Your task to perform on an android device: Open calendar and show me the second week of next month Image 0: 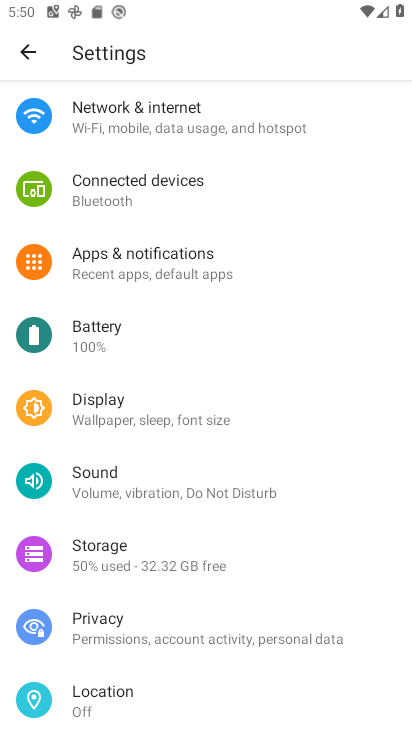
Step 0: press home button
Your task to perform on an android device: Open calendar and show me the second week of next month Image 1: 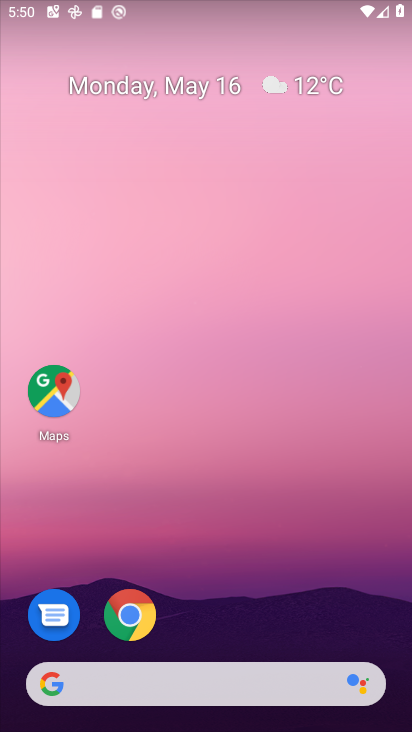
Step 1: drag from (244, 608) to (243, 154)
Your task to perform on an android device: Open calendar and show me the second week of next month Image 2: 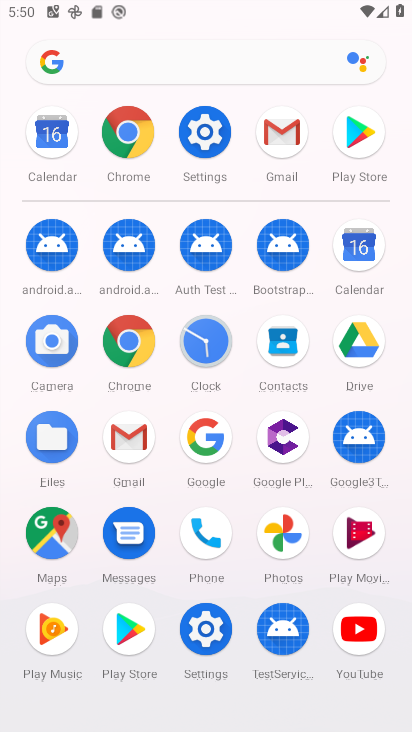
Step 2: click (361, 266)
Your task to perform on an android device: Open calendar and show me the second week of next month Image 3: 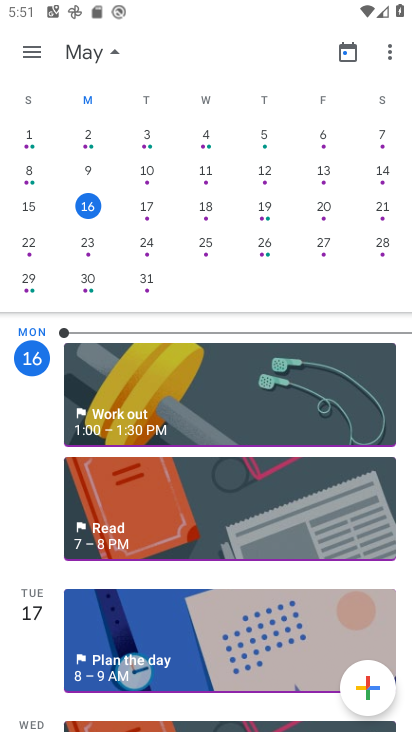
Step 3: click (30, 57)
Your task to perform on an android device: Open calendar and show me the second week of next month Image 4: 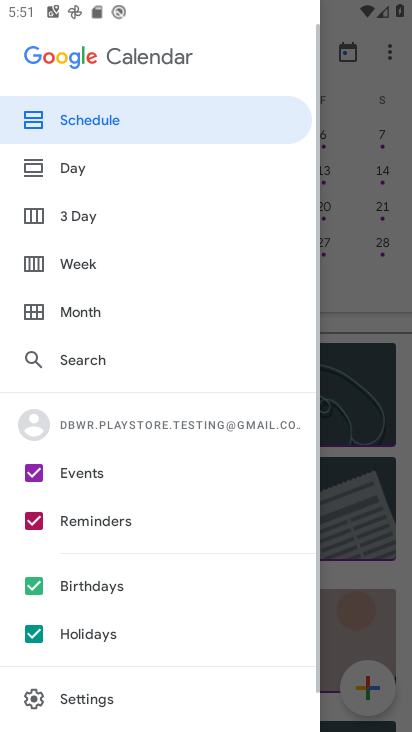
Step 4: click (61, 278)
Your task to perform on an android device: Open calendar and show me the second week of next month Image 5: 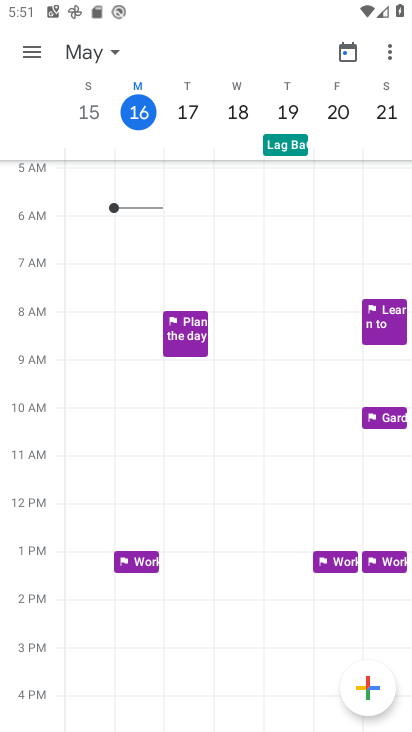
Step 5: click (92, 53)
Your task to perform on an android device: Open calendar and show me the second week of next month Image 6: 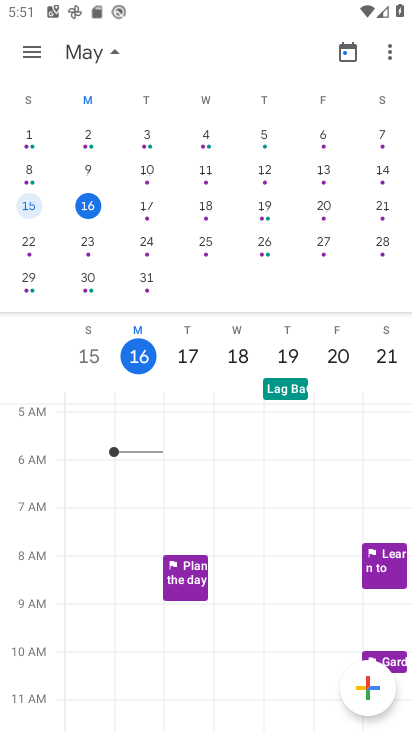
Step 6: drag from (292, 193) to (0, 196)
Your task to perform on an android device: Open calendar and show me the second week of next month Image 7: 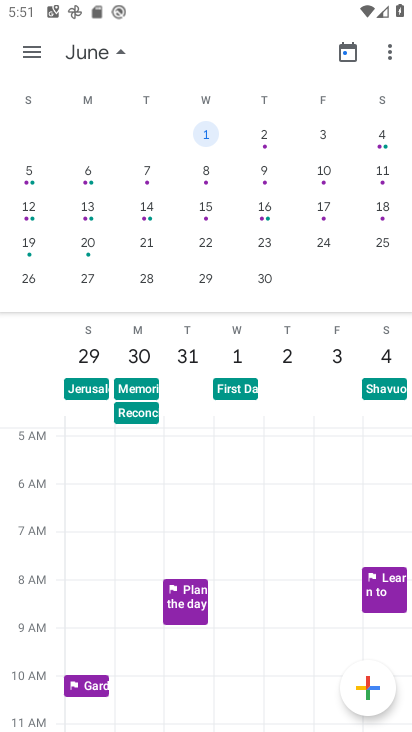
Step 7: click (28, 210)
Your task to perform on an android device: Open calendar and show me the second week of next month Image 8: 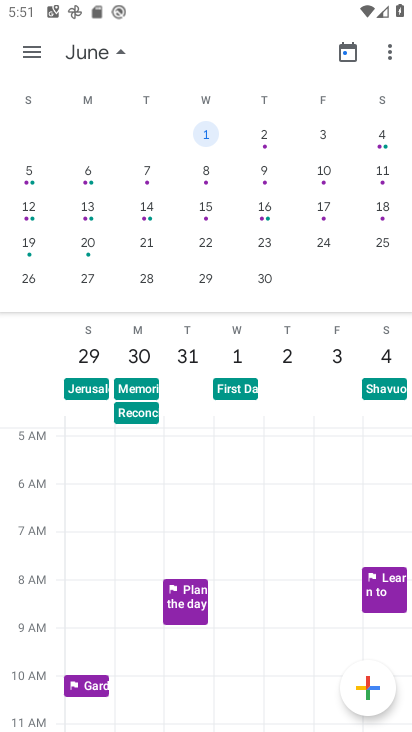
Step 8: click (33, 209)
Your task to perform on an android device: Open calendar and show me the second week of next month Image 9: 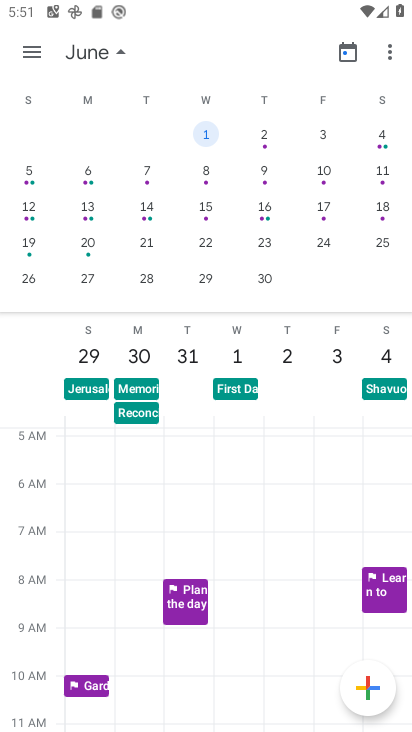
Step 9: click (29, 203)
Your task to perform on an android device: Open calendar and show me the second week of next month Image 10: 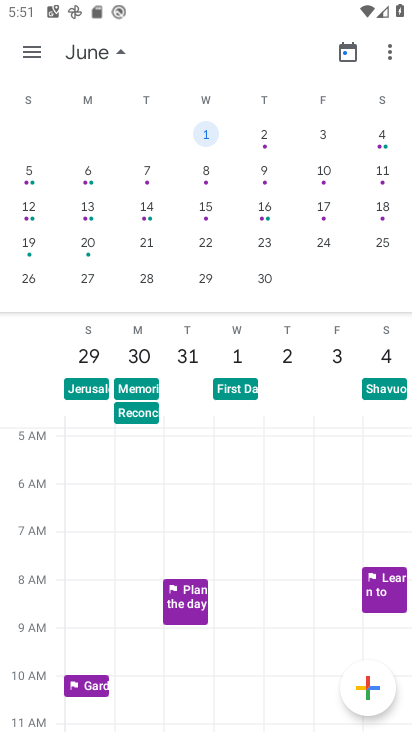
Step 10: click (29, 208)
Your task to perform on an android device: Open calendar and show me the second week of next month Image 11: 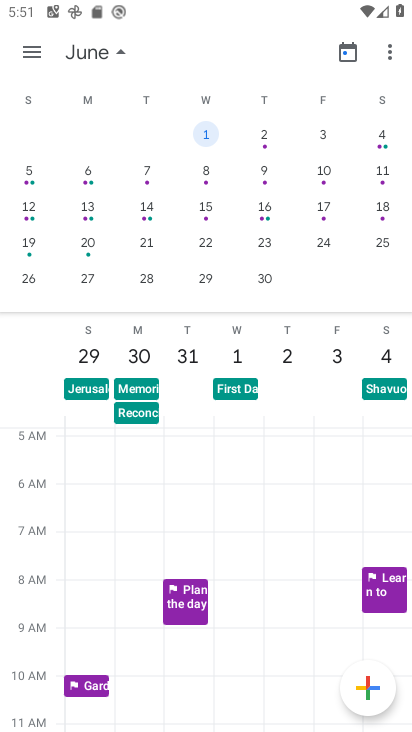
Step 11: click (35, 202)
Your task to perform on an android device: Open calendar and show me the second week of next month Image 12: 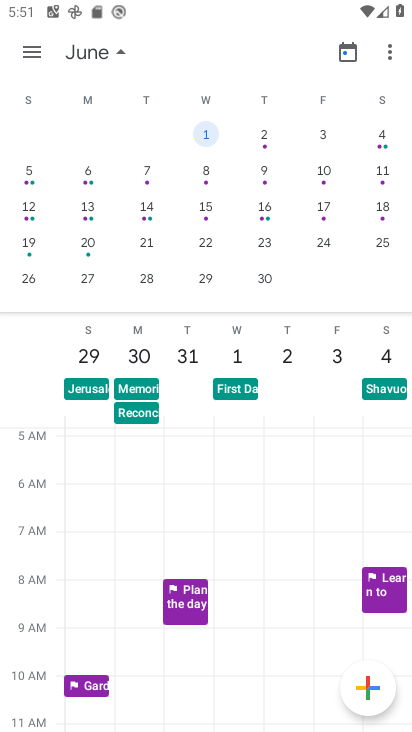
Step 12: click (36, 204)
Your task to perform on an android device: Open calendar and show me the second week of next month Image 13: 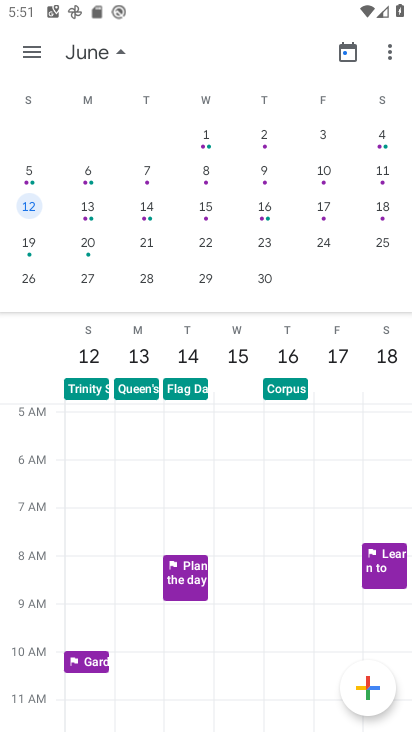
Step 13: task complete